Your task to perform on an android device: toggle location history Image 0: 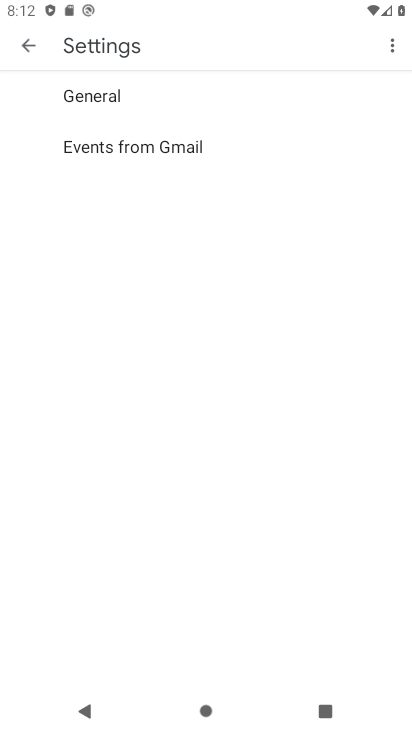
Step 0: press home button
Your task to perform on an android device: toggle location history Image 1: 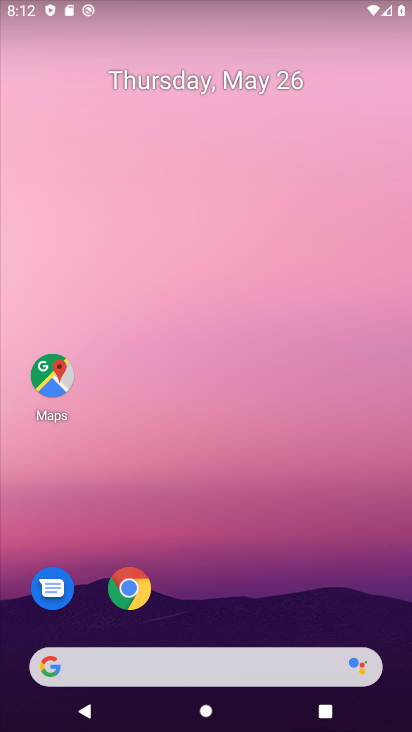
Step 1: drag from (279, 570) to (211, 77)
Your task to perform on an android device: toggle location history Image 2: 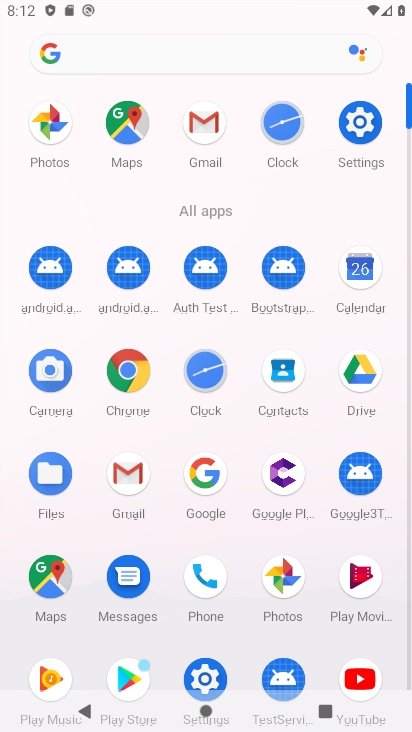
Step 2: click (348, 124)
Your task to perform on an android device: toggle location history Image 3: 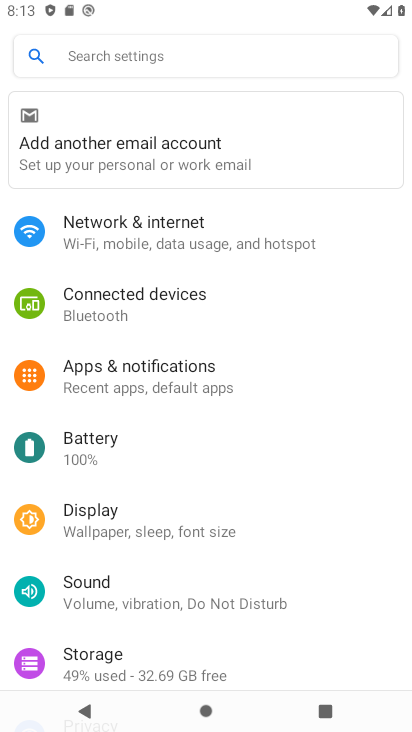
Step 3: drag from (168, 624) to (208, 97)
Your task to perform on an android device: toggle location history Image 4: 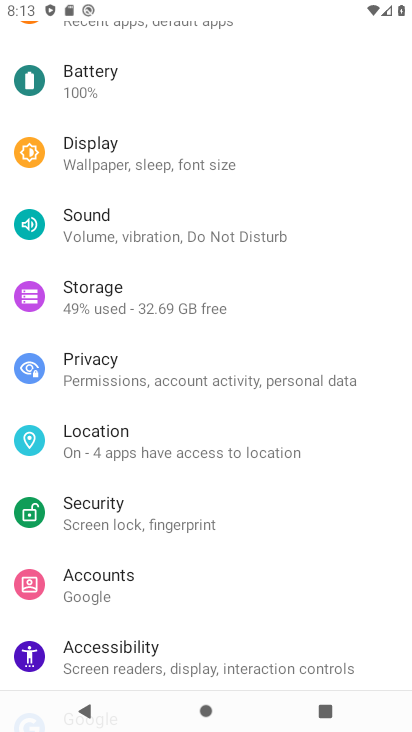
Step 4: click (108, 432)
Your task to perform on an android device: toggle location history Image 5: 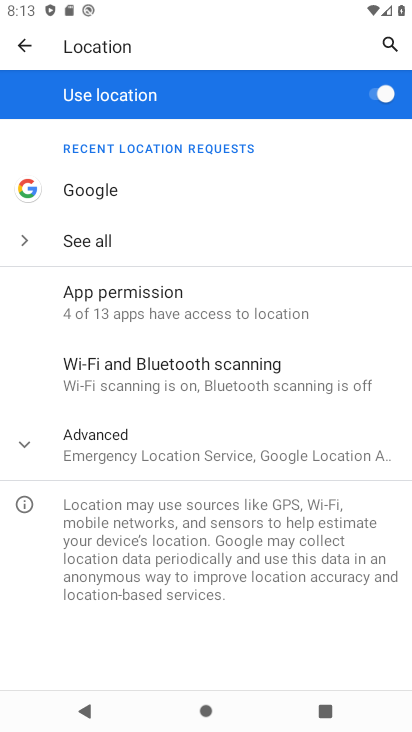
Step 5: click (80, 463)
Your task to perform on an android device: toggle location history Image 6: 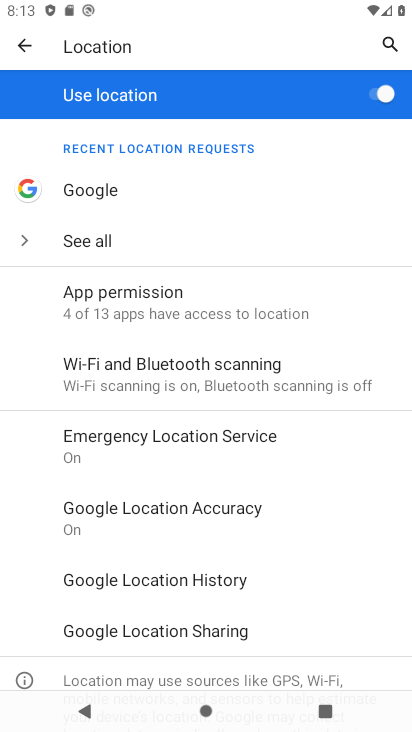
Step 6: click (171, 578)
Your task to perform on an android device: toggle location history Image 7: 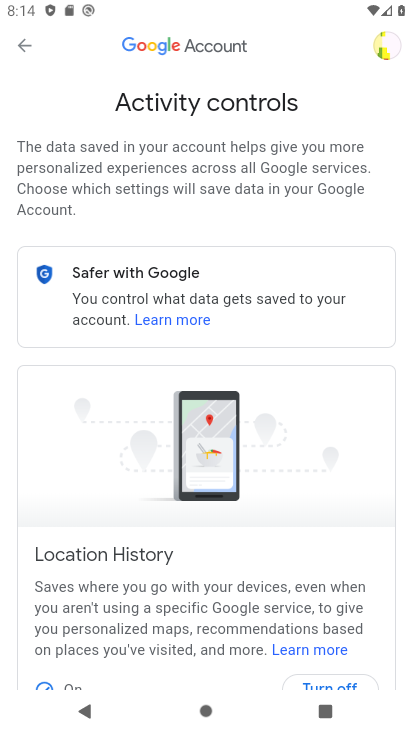
Step 7: drag from (336, 676) to (331, 447)
Your task to perform on an android device: toggle location history Image 8: 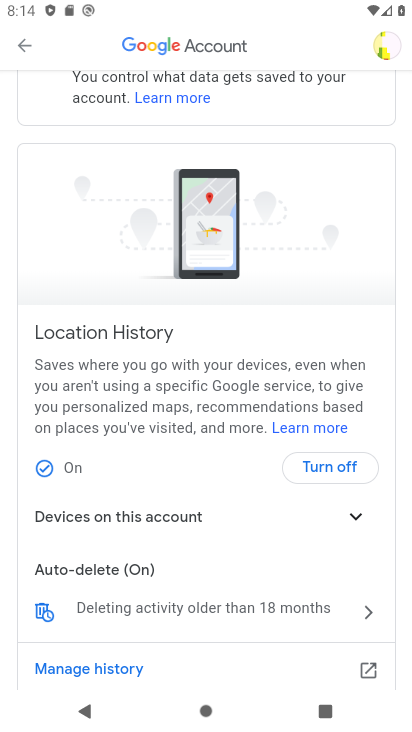
Step 8: click (346, 453)
Your task to perform on an android device: toggle location history Image 9: 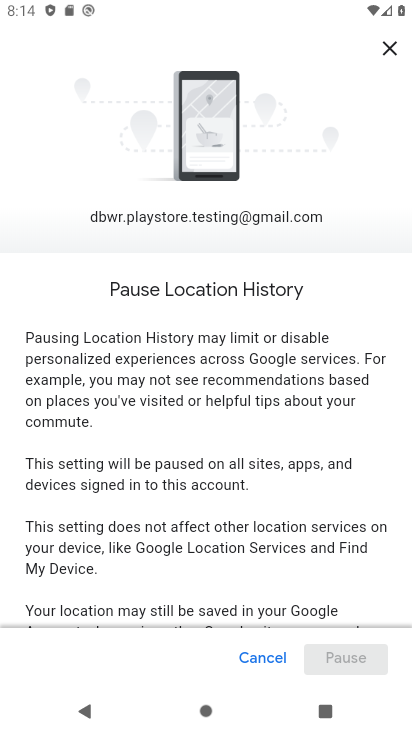
Step 9: drag from (280, 585) to (386, 30)
Your task to perform on an android device: toggle location history Image 10: 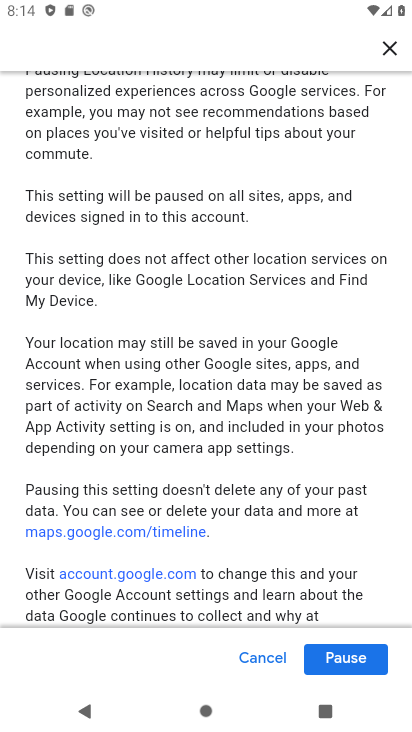
Step 10: click (345, 655)
Your task to perform on an android device: toggle location history Image 11: 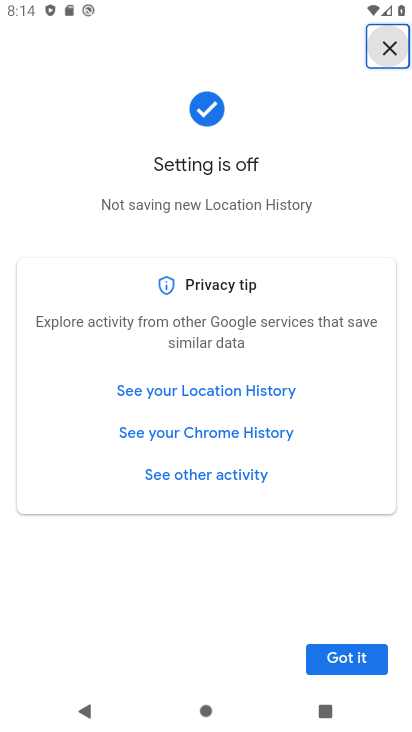
Step 11: task complete